Your task to perform on an android device: Go to wifi settings Image 0: 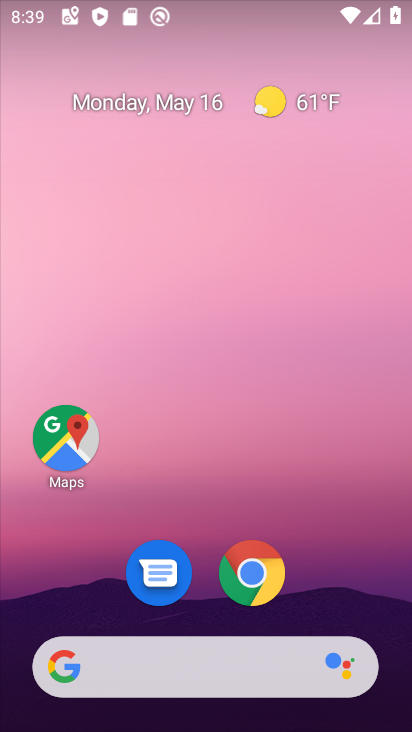
Step 0: drag from (177, 721) to (172, 248)
Your task to perform on an android device: Go to wifi settings Image 1: 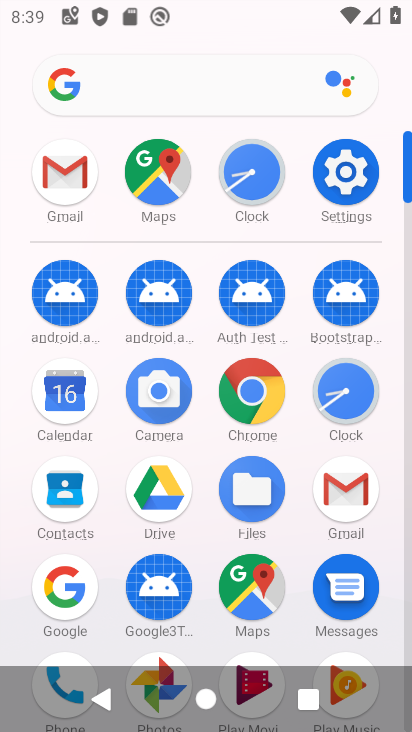
Step 1: click (349, 177)
Your task to perform on an android device: Go to wifi settings Image 2: 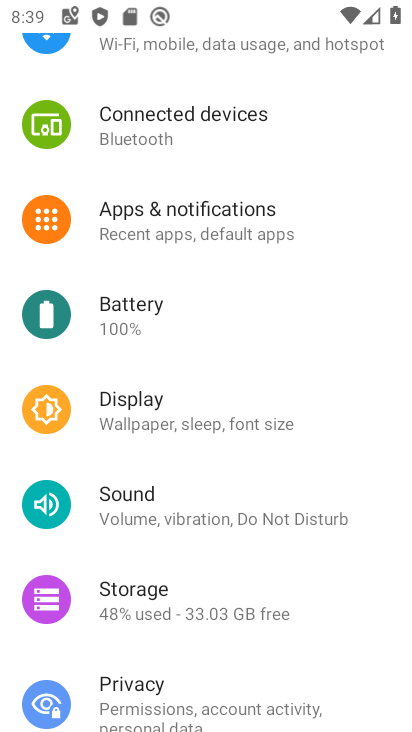
Step 2: drag from (209, 169) to (206, 521)
Your task to perform on an android device: Go to wifi settings Image 3: 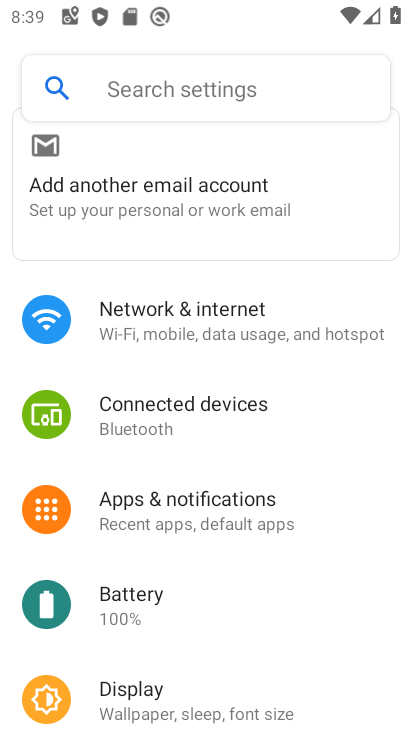
Step 3: click (177, 319)
Your task to perform on an android device: Go to wifi settings Image 4: 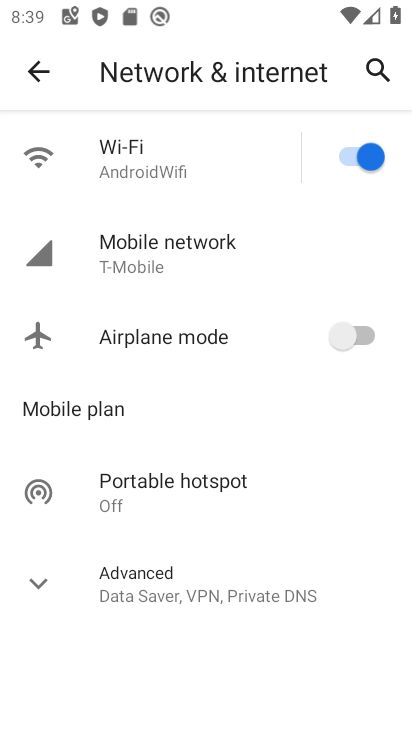
Step 4: click (120, 152)
Your task to perform on an android device: Go to wifi settings Image 5: 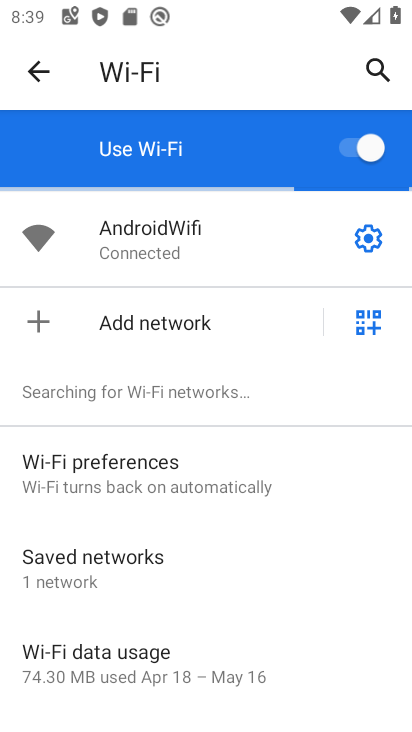
Step 5: task complete